Your task to perform on an android device: uninstall "Pinterest" Image 0: 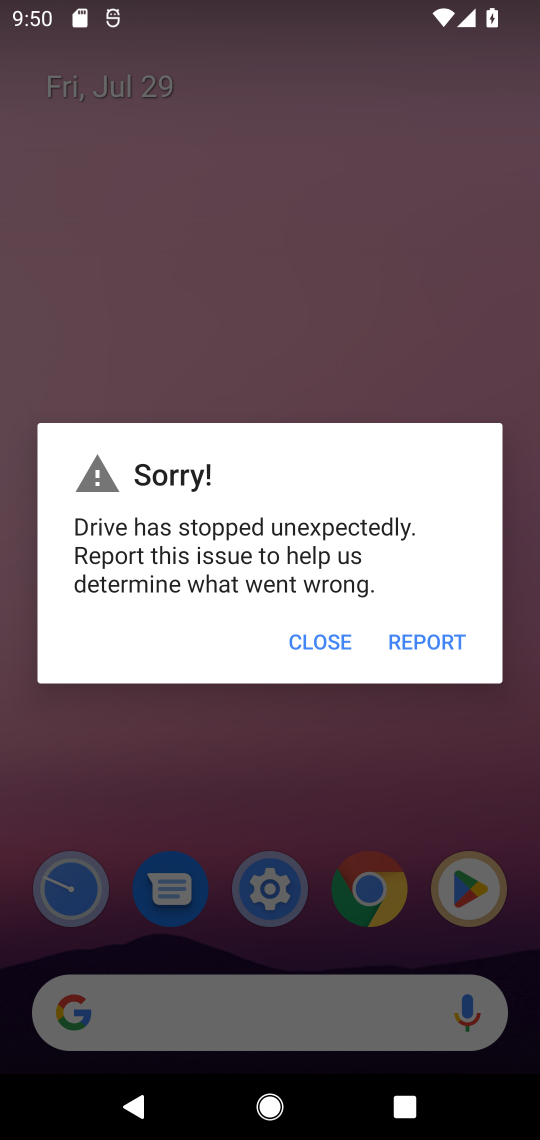
Step 0: press home button
Your task to perform on an android device: uninstall "Pinterest" Image 1: 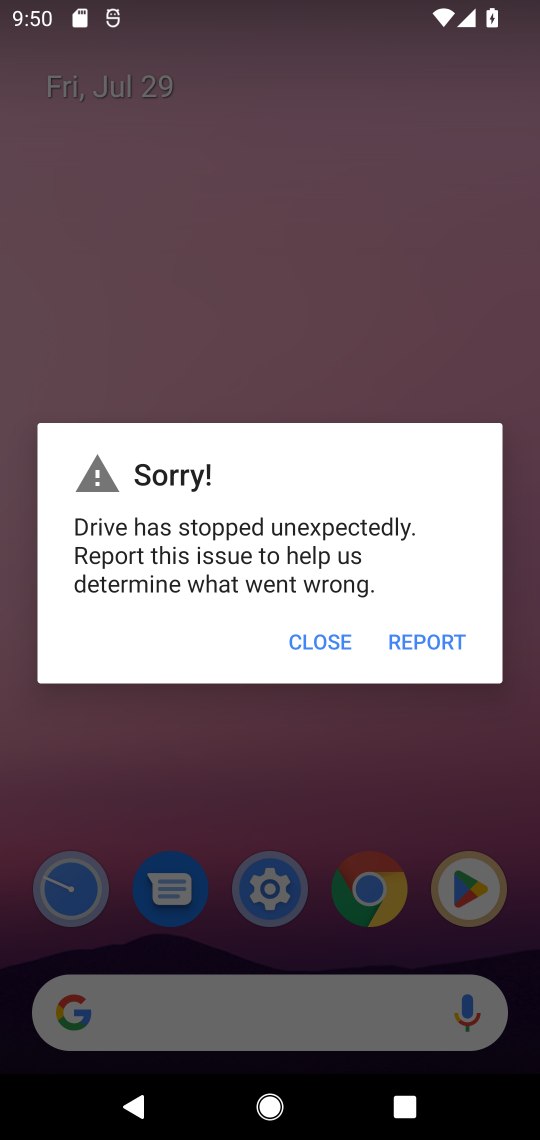
Step 1: press home button
Your task to perform on an android device: uninstall "Pinterest" Image 2: 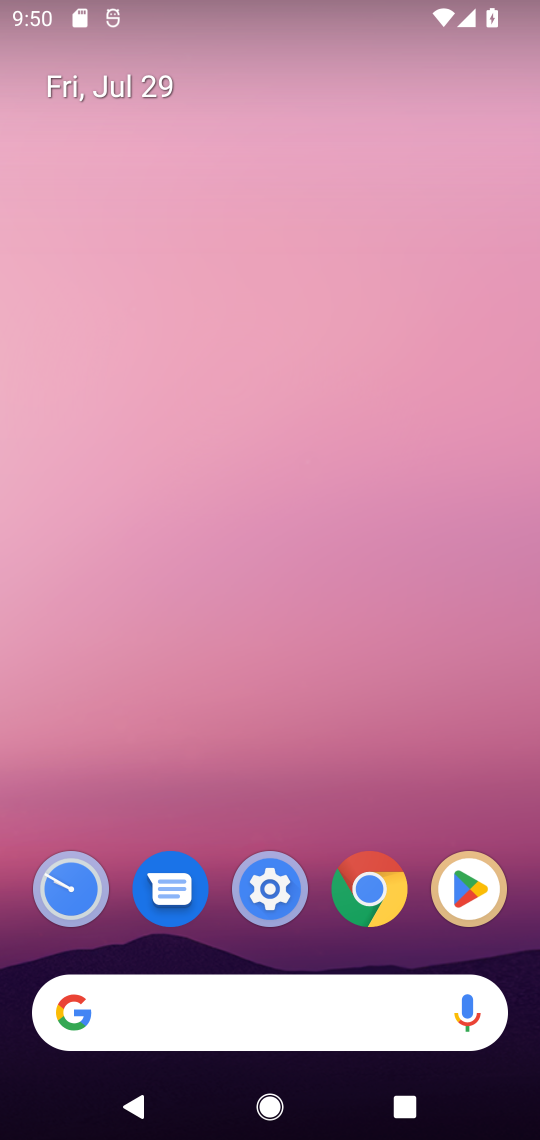
Step 2: drag from (452, 759) to (446, 2)
Your task to perform on an android device: uninstall "Pinterest" Image 3: 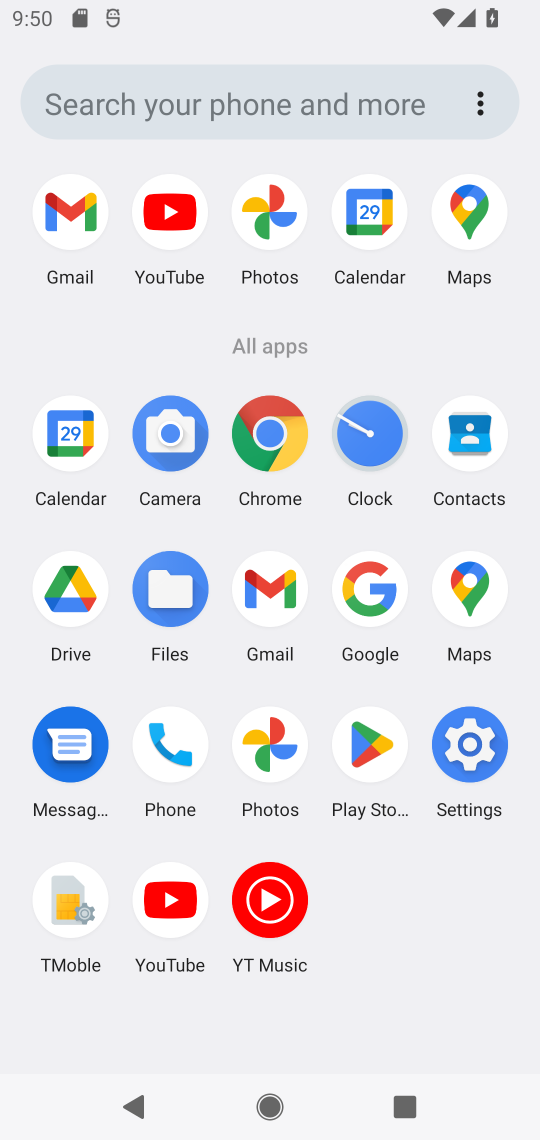
Step 3: click (455, 956)
Your task to perform on an android device: uninstall "Pinterest" Image 4: 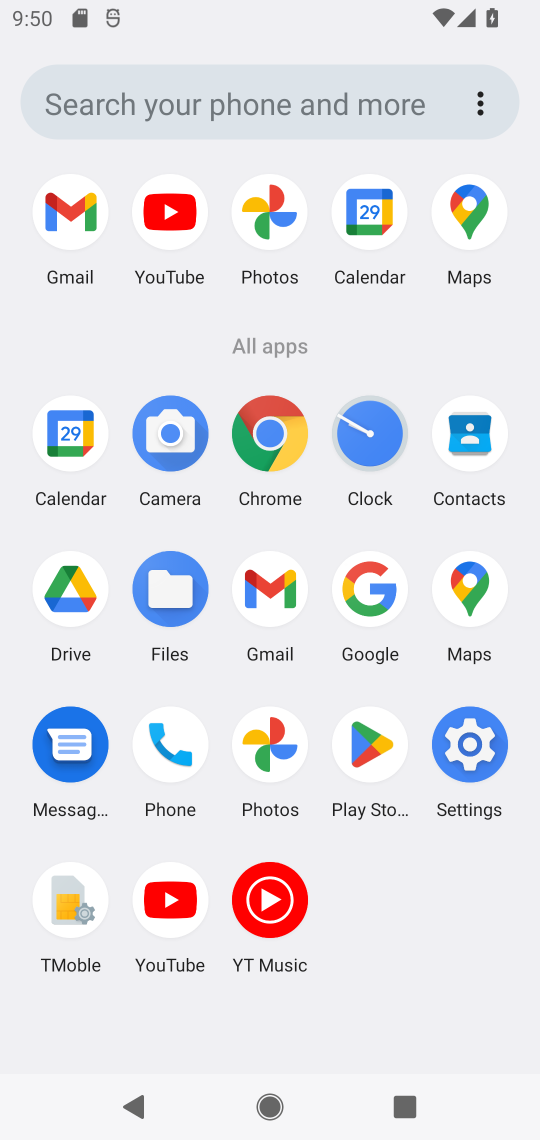
Step 4: click (377, 771)
Your task to perform on an android device: uninstall "Pinterest" Image 5: 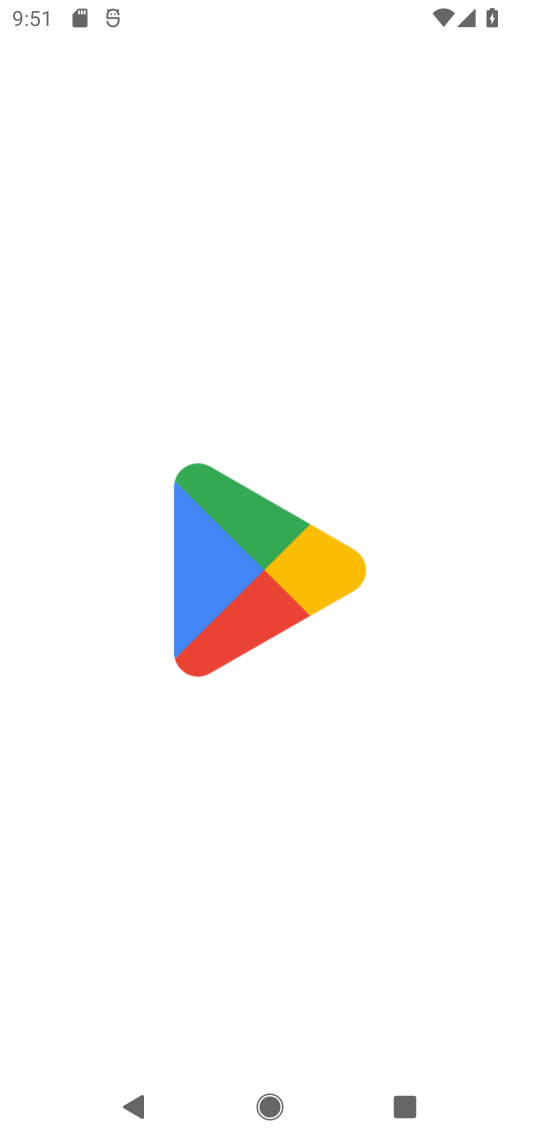
Step 5: task complete